Your task to perform on an android device: open a new tab in the chrome app Image 0: 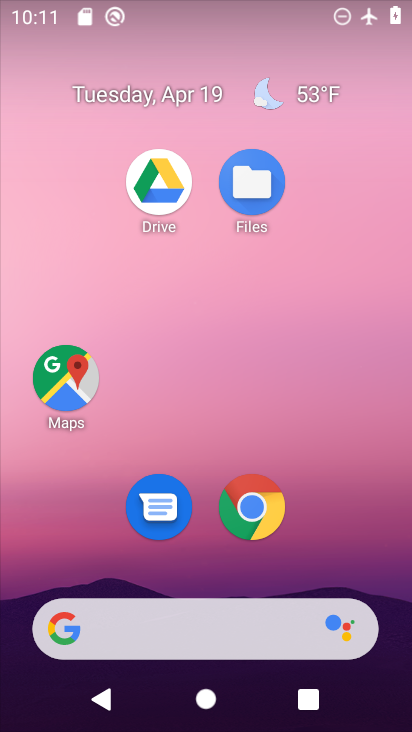
Step 0: click (262, 514)
Your task to perform on an android device: open a new tab in the chrome app Image 1: 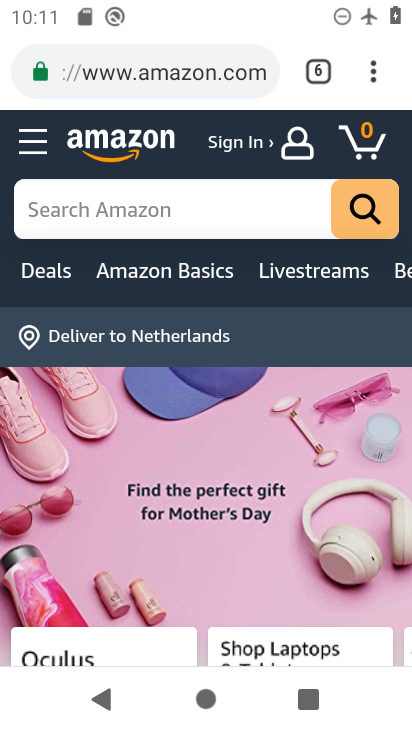
Step 1: task complete